Your task to perform on an android device: turn on showing notifications on the lock screen Image 0: 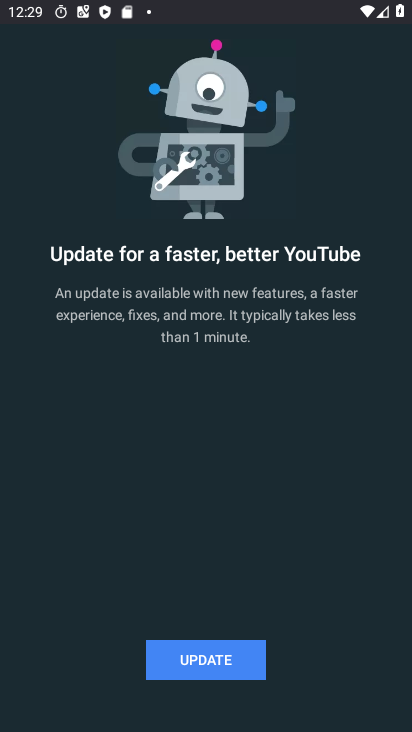
Step 0: press back button
Your task to perform on an android device: turn on showing notifications on the lock screen Image 1: 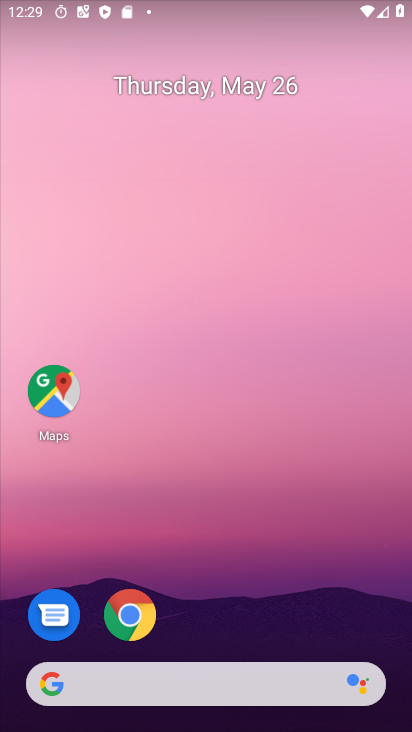
Step 1: drag from (223, 626) to (184, 250)
Your task to perform on an android device: turn on showing notifications on the lock screen Image 2: 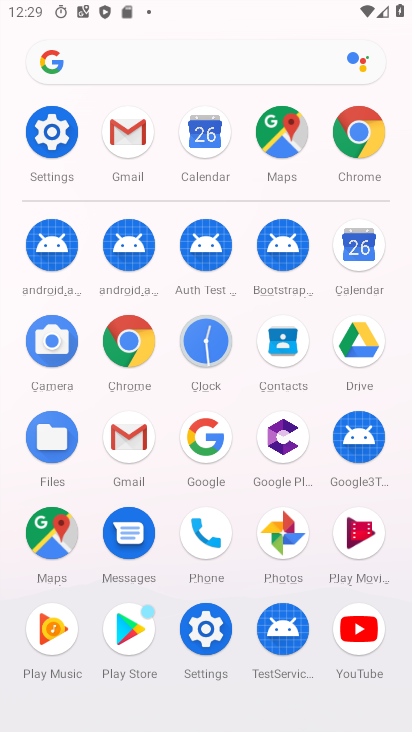
Step 2: click (62, 151)
Your task to perform on an android device: turn on showing notifications on the lock screen Image 3: 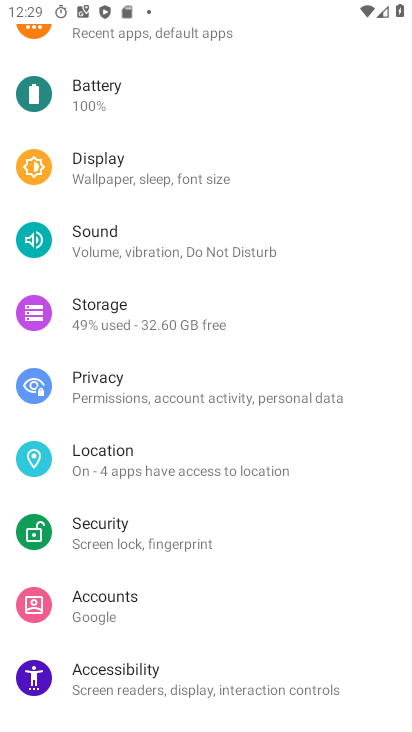
Step 3: drag from (186, 99) to (199, 510)
Your task to perform on an android device: turn on showing notifications on the lock screen Image 4: 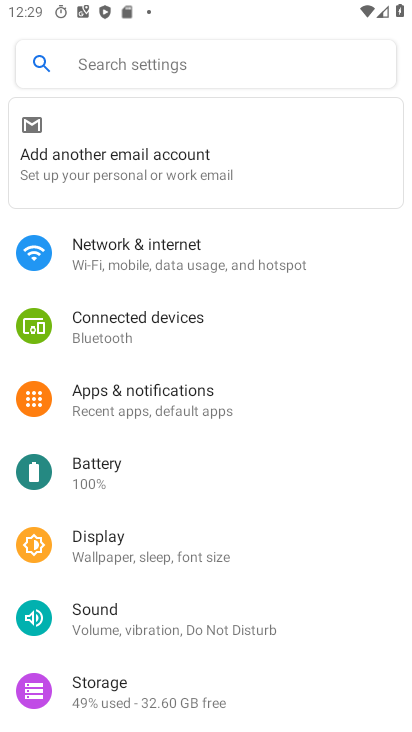
Step 4: click (182, 406)
Your task to perform on an android device: turn on showing notifications on the lock screen Image 5: 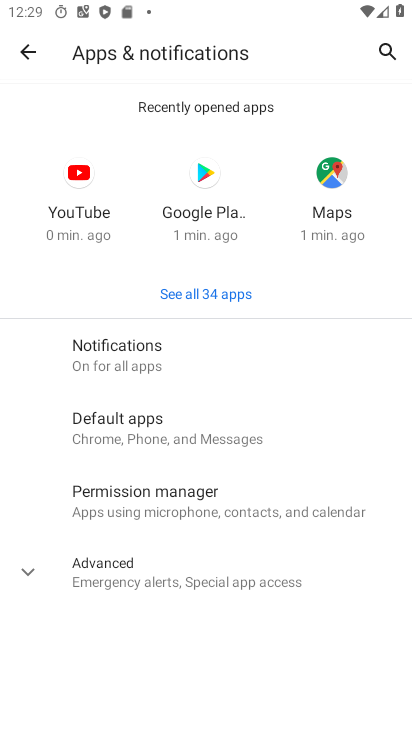
Step 5: click (259, 353)
Your task to perform on an android device: turn on showing notifications on the lock screen Image 6: 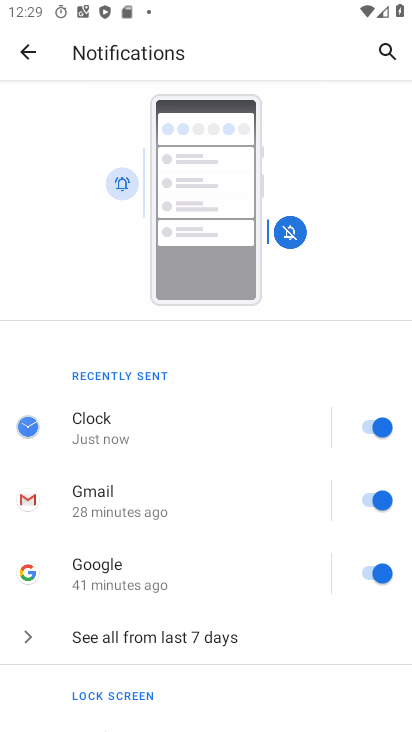
Step 6: drag from (234, 674) to (199, 238)
Your task to perform on an android device: turn on showing notifications on the lock screen Image 7: 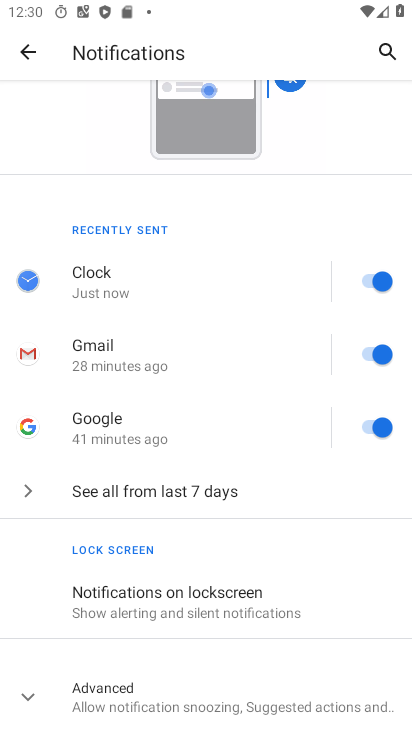
Step 7: click (255, 614)
Your task to perform on an android device: turn on showing notifications on the lock screen Image 8: 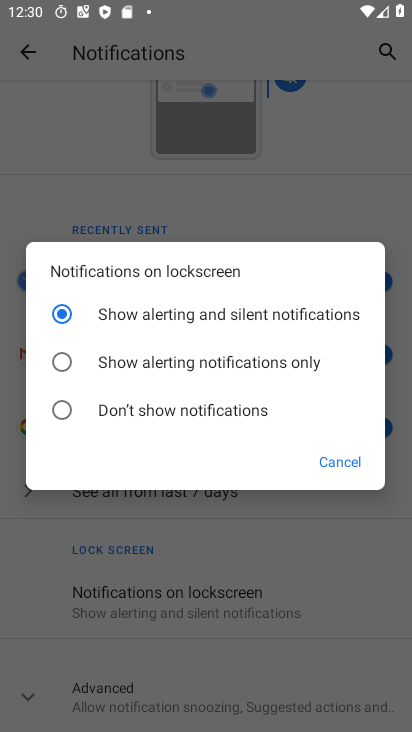
Step 8: task complete